Your task to perform on an android device: Go to accessibility settings Image 0: 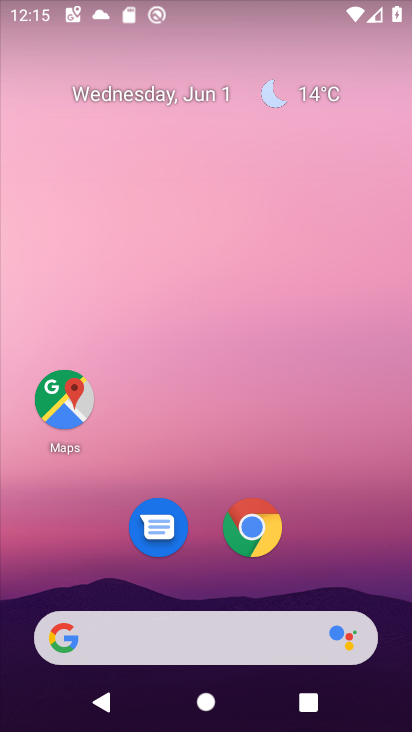
Step 0: drag from (365, 594) to (321, 12)
Your task to perform on an android device: Go to accessibility settings Image 1: 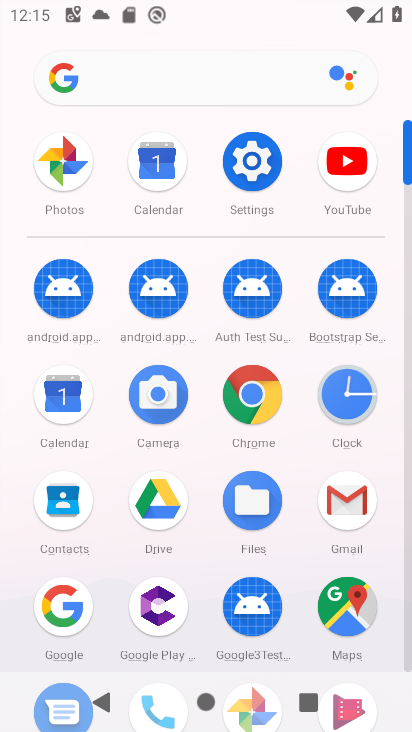
Step 1: click (251, 161)
Your task to perform on an android device: Go to accessibility settings Image 2: 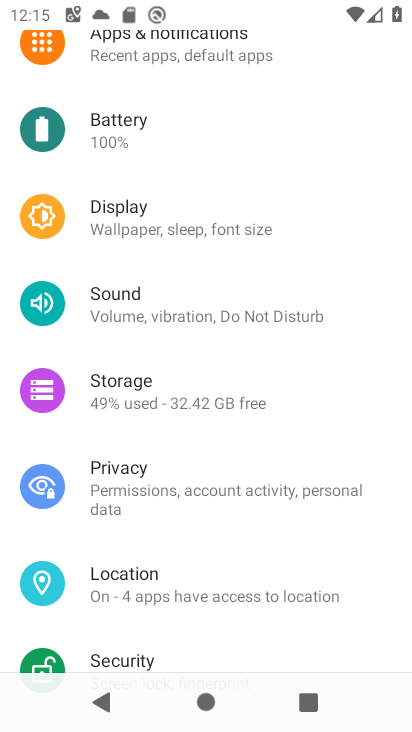
Step 2: drag from (278, 467) to (242, 120)
Your task to perform on an android device: Go to accessibility settings Image 3: 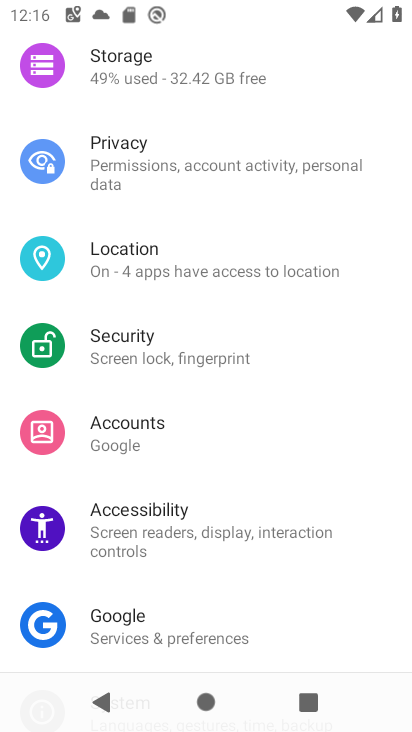
Step 3: click (121, 536)
Your task to perform on an android device: Go to accessibility settings Image 4: 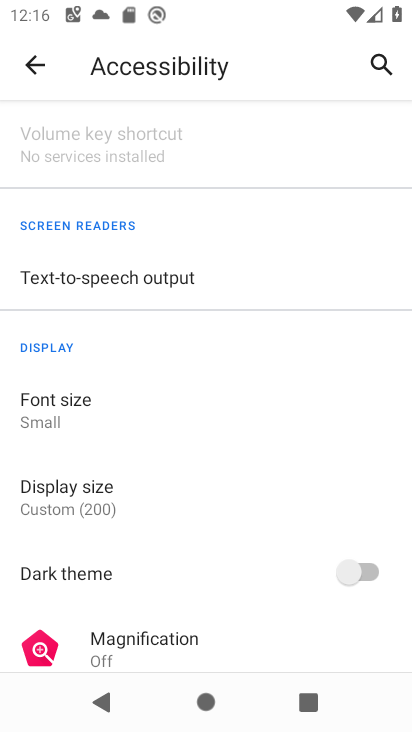
Step 4: task complete